Your task to perform on an android device: What's on my calendar today? Image 0: 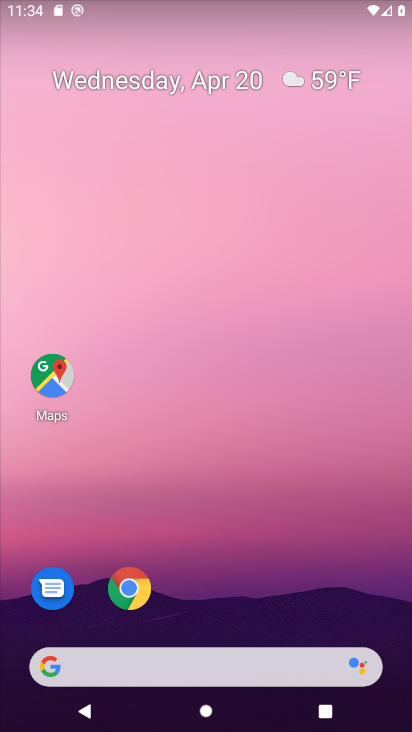
Step 0: drag from (391, 616) to (379, 250)
Your task to perform on an android device: What's on my calendar today? Image 1: 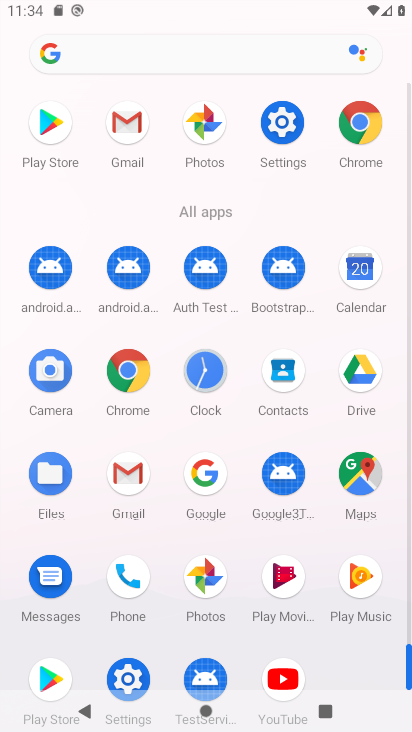
Step 1: click (359, 264)
Your task to perform on an android device: What's on my calendar today? Image 2: 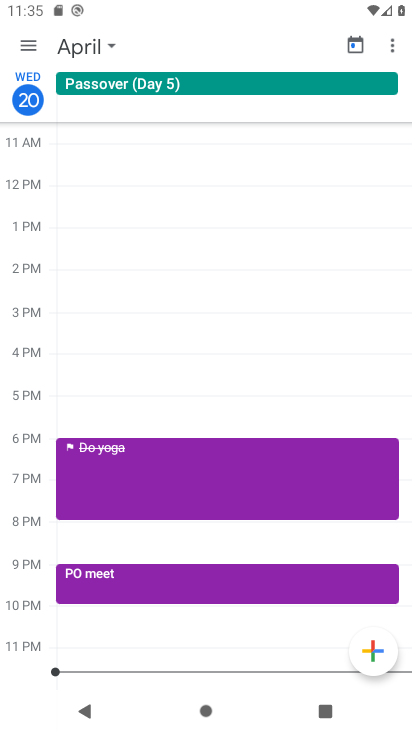
Step 2: click (118, 366)
Your task to perform on an android device: What's on my calendar today? Image 3: 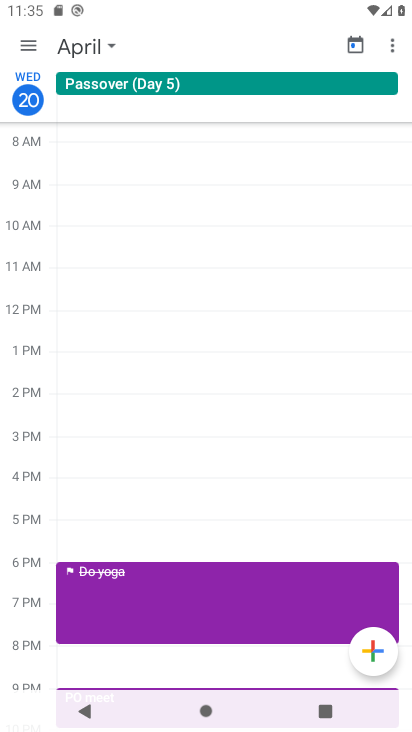
Step 3: task complete